Your task to perform on an android device: make emails show in primary in the gmail app Image 0: 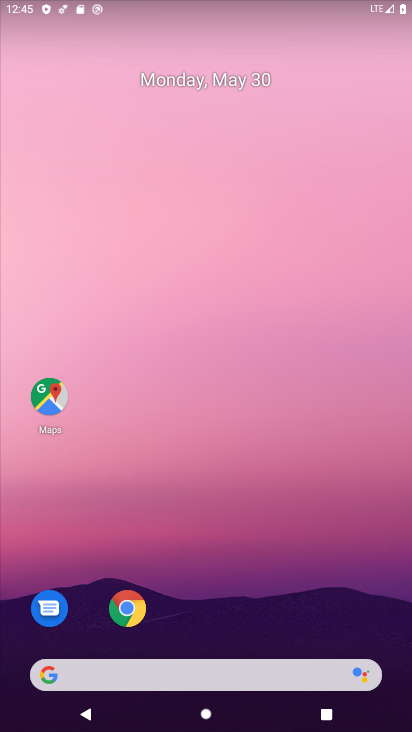
Step 0: drag from (224, 632) to (274, 72)
Your task to perform on an android device: make emails show in primary in the gmail app Image 1: 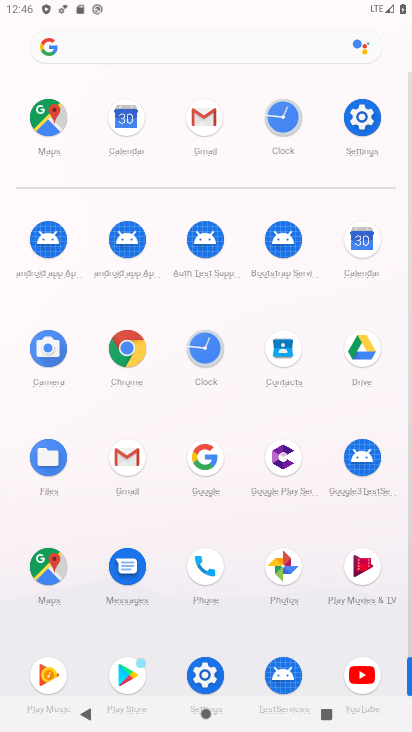
Step 1: click (113, 468)
Your task to perform on an android device: make emails show in primary in the gmail app Image 2: 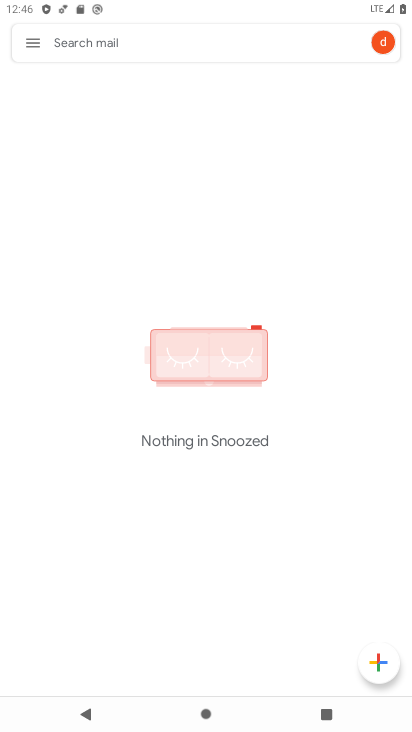
Step 2: click (25, 42)
Your task to perform on an android device: make emails show in primary in the gmail app Image 3: 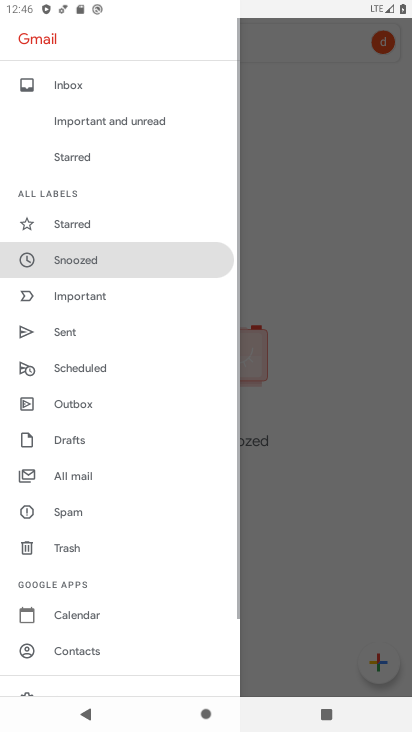
Step 3: drag from (118, 598) to (218, 123)
Your task to perform on an android device: make emails show in primary in the gmail app Image 4: 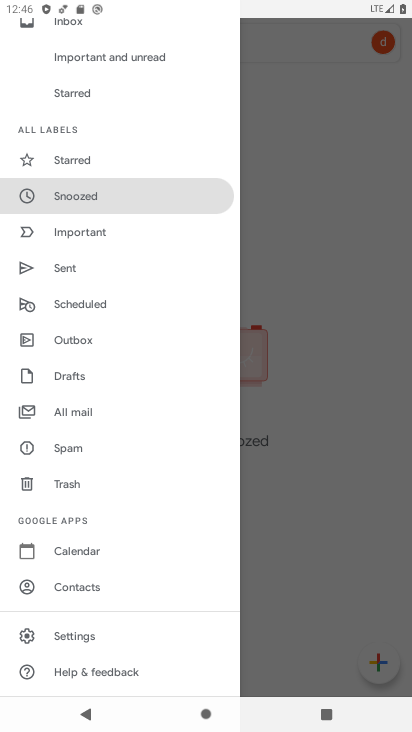
Step 4: click (93, 638)
Your task to perform on an android device: make emails show in primary in the gmail app Image 5: 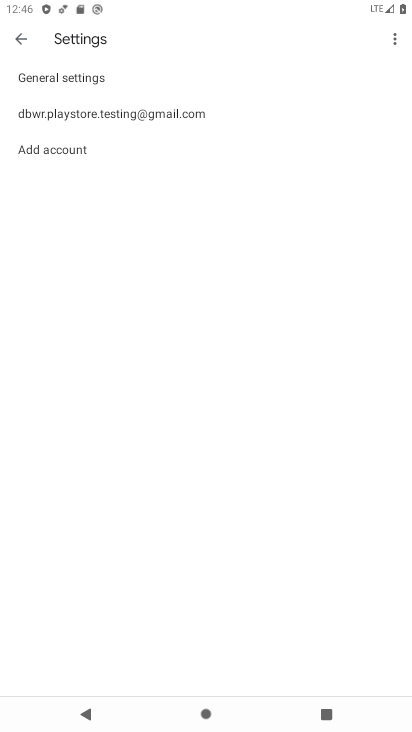
Step 5: click (11, 104)
Your task to perform on an android device: make emails show in primary in the gmail app Image 6: 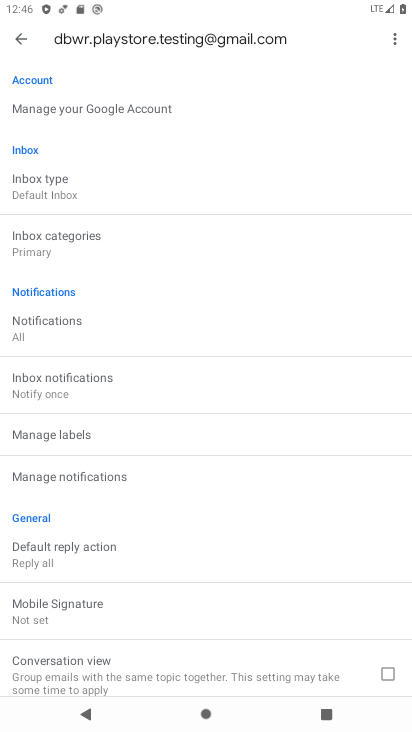
Step 6: task complete